Your task to perform on an android device: search for starred emails in the gmail app Image 0: 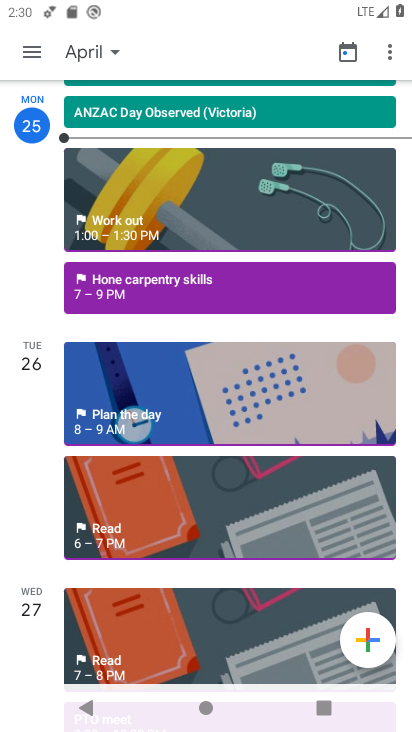
Step 0: press home button
Your task to perform on an android device: search for starred emails in the gmail app Image 1: 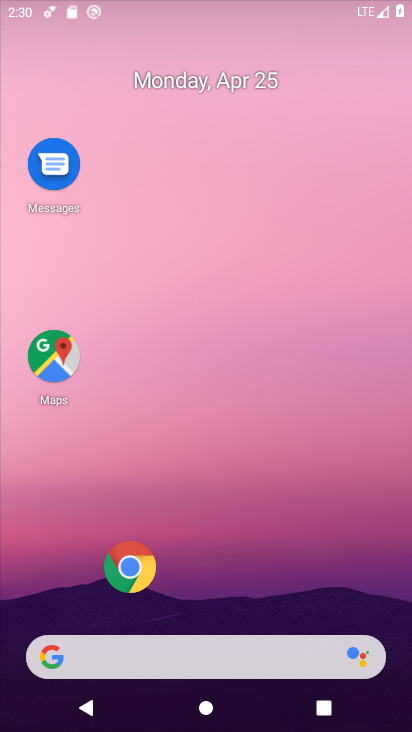
Step 1: drag from (186, 617) to (252, 2)
Your task to perform on an android device: search for starred emails in the gmail app Image 2: 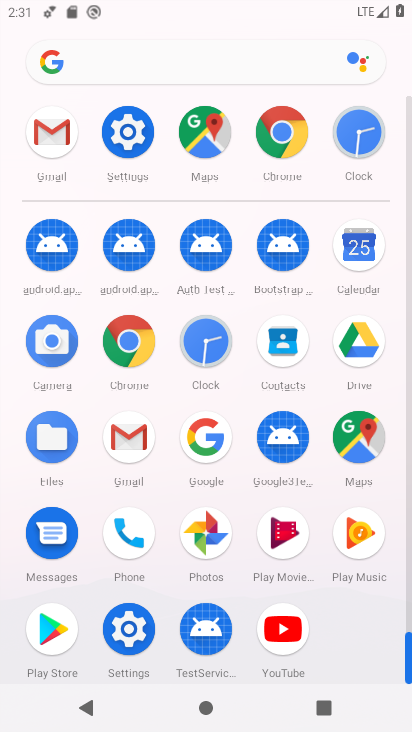
Step 2: click (137, 452)
Your task to perform on an android device: search for starred emails in the gmail app Image 3: 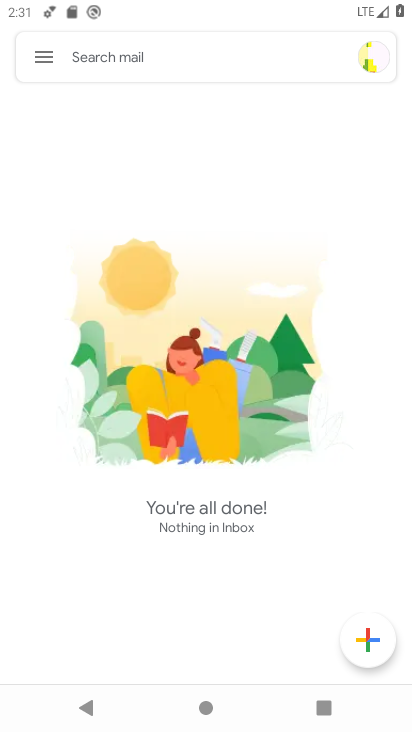
Step 3: click (53, 49)
Your task to perform on an android device: search for starred emails in the gmail app Image 4: 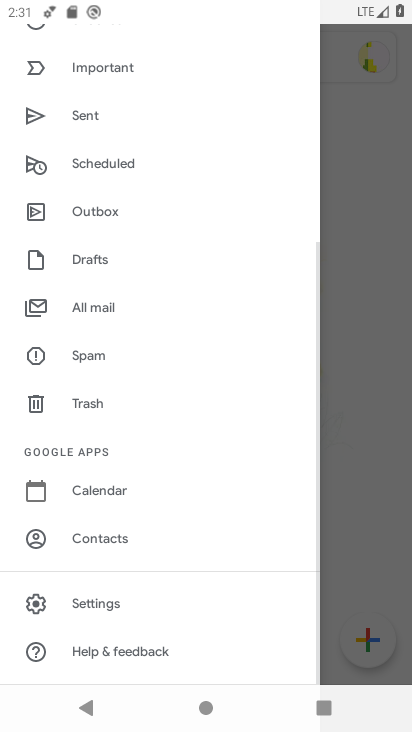
Step 4: drag from (120, 352) to (91, 621)
Your task to perform on an android device: search for starred emails in the gmail app Image 5: 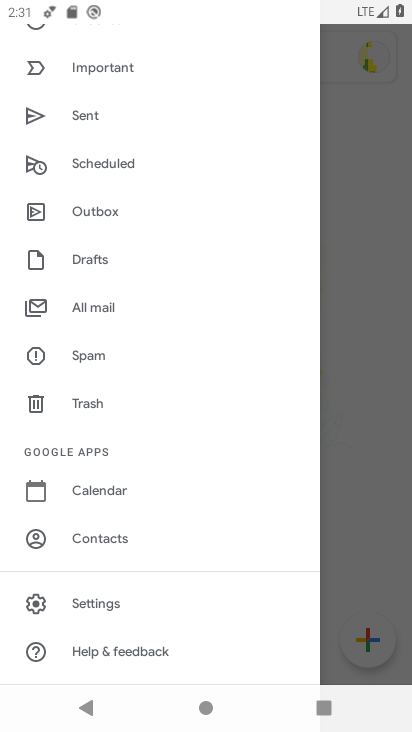
Step 5: drag from (212, 281) to (181, 602)
Your task to perform on an android device: search for starred emails in the gmail app Image 6: 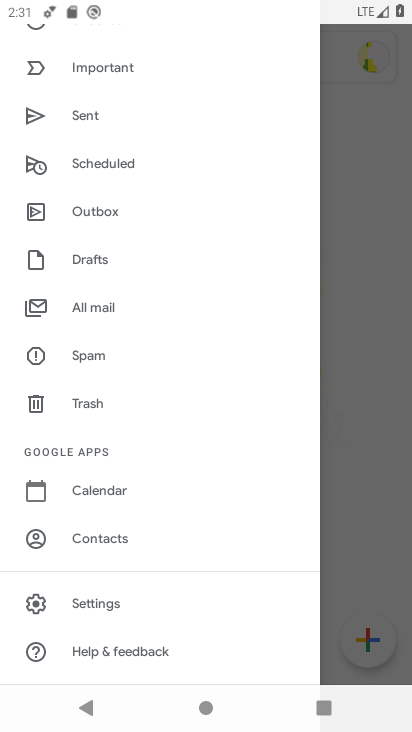
Step 6: drag from (209, 291) to (166, 679)
Your task to perform on an android device: search for starred emails in the gmail app Image 7: 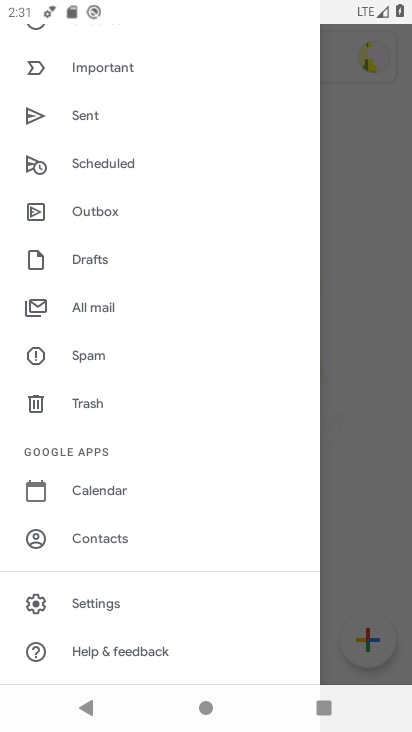
Step 7: drag from (77, 445) to (78, 635)
Your task to perform on an android device: search for starred emails in the gmail app Image 8: 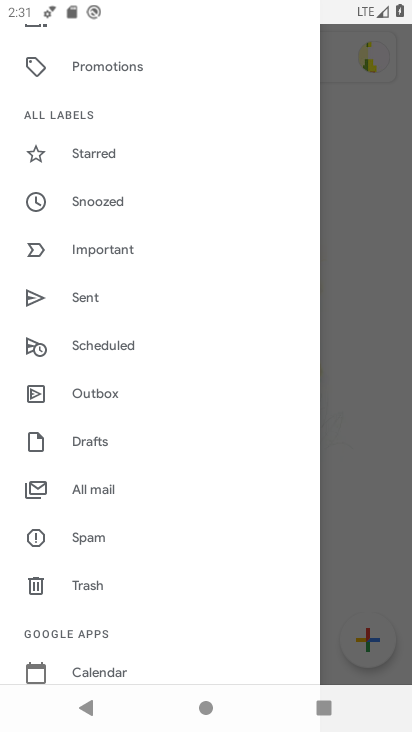
Step 8: click (143, 150)
Your task to perform on an android device: search for starred emails in the gmail app Image 9: 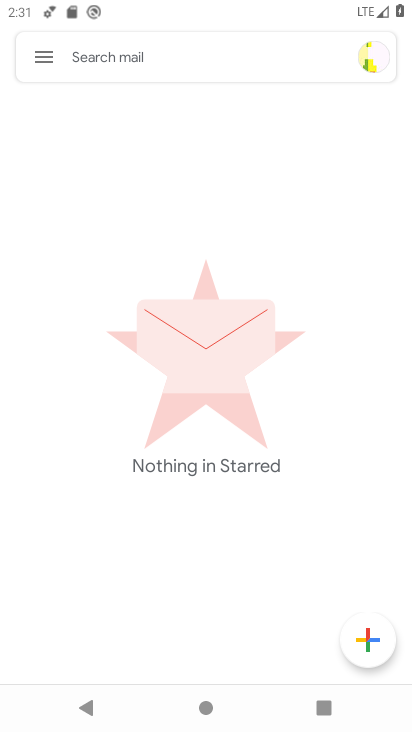
Step 9: task complete